Your task to perform on an android device: turn off location Image 0: 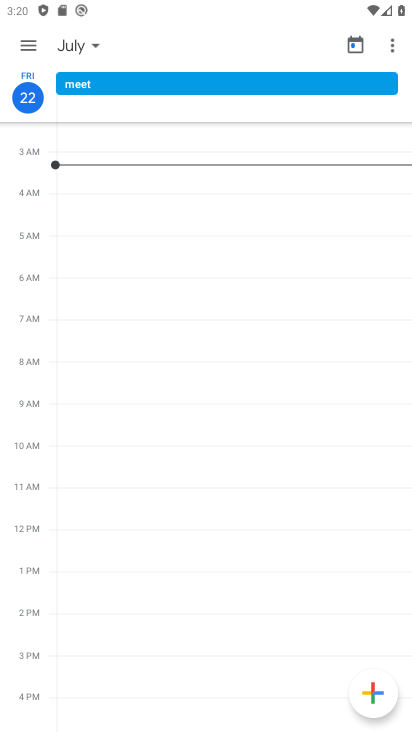
Step 0: press home button
Your task to perform on an android device: turn off location Image 1: 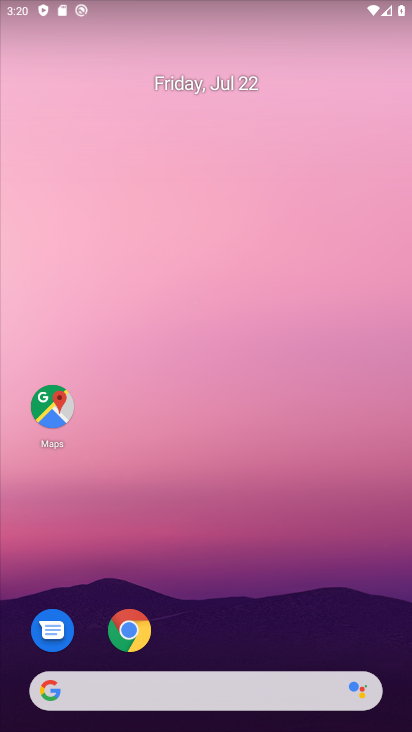
Step 1: drag from (210, 621) to (190, 49)
Your task to perform on an android device: turn off location Image 2: 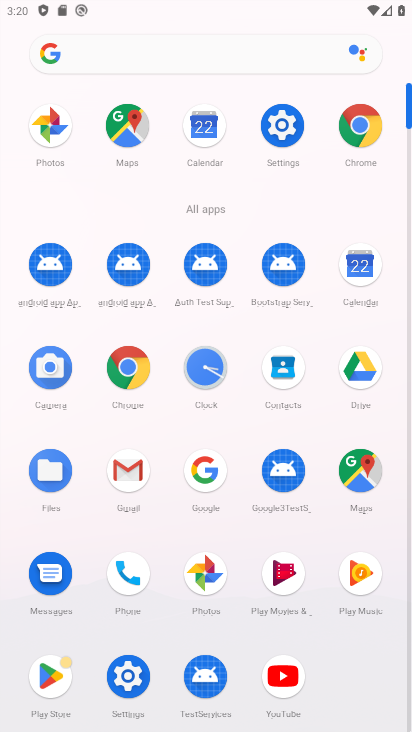
Step 2: click (126, 679)
Your task to perform on an android device: turn off location Image 3: 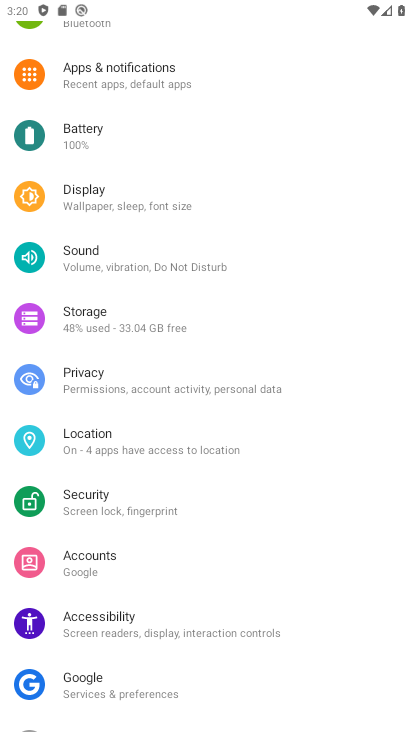
Step 3: click (97, 443)
Your task to perform on an android device: turn off location Image 4: 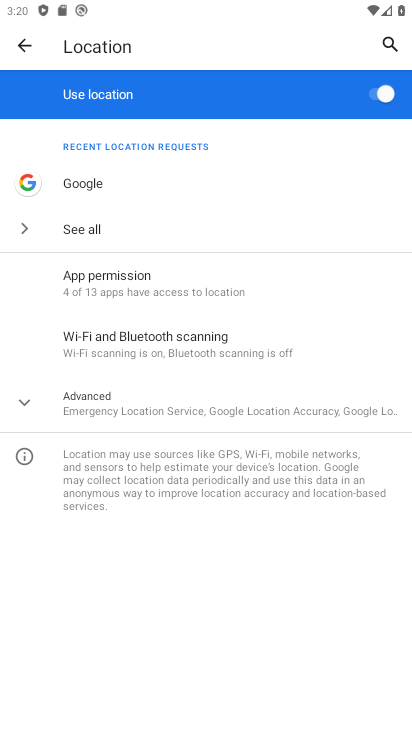
Step 4: click (359, 104)
Your task to perform on an android device: turn off location Image 5: 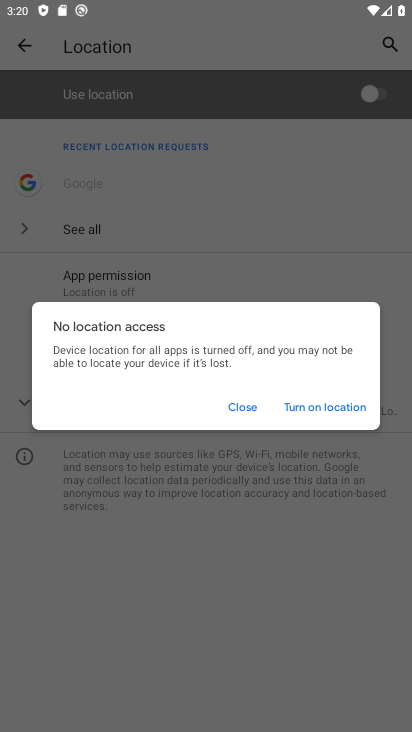
Step 5: click (242, 403)
Your task to perform on an android device: turn off location Image 6: 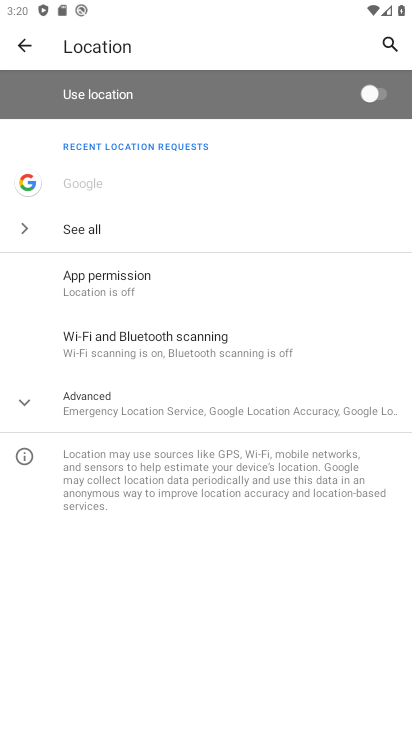
Step 6: task complete